Your task to perform on an android device: all mails in gmail Image 0: 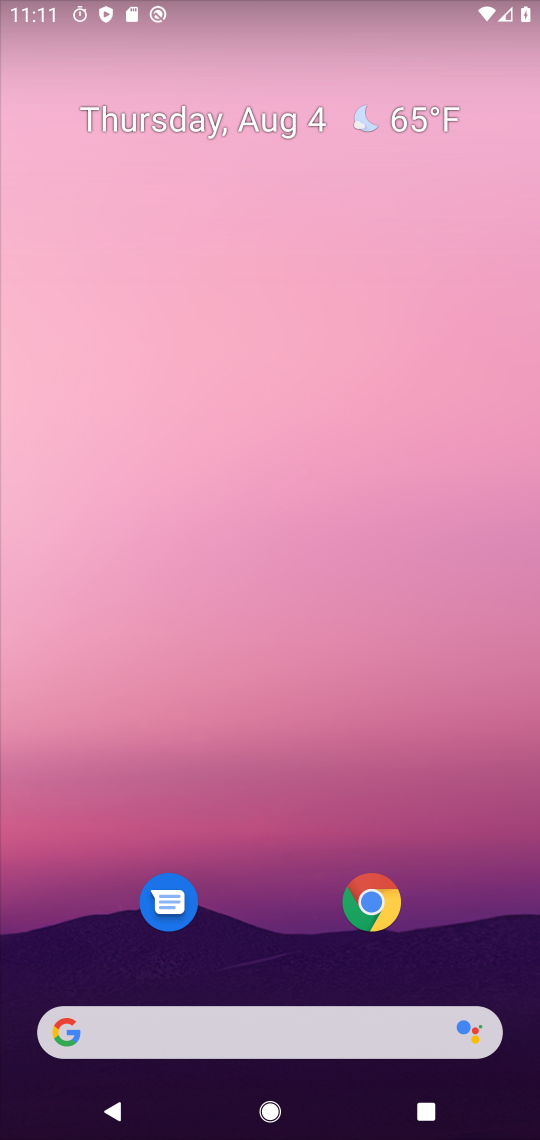
Step 0: press home button
Your task to perform on an android device: all mails in gmail Image 1: 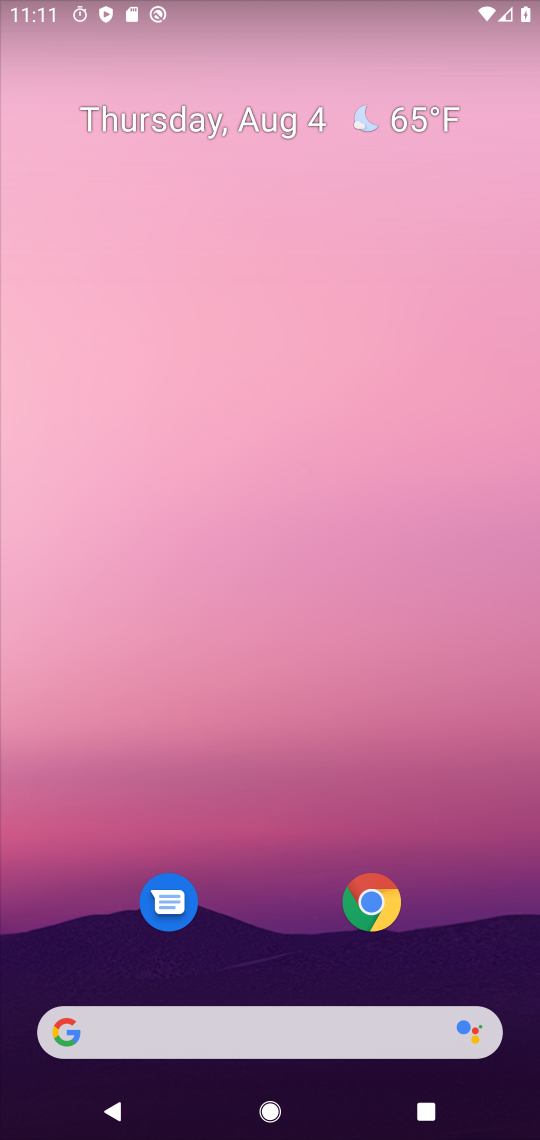
Step 1: drag from (320, 839) to (379, 181)
Your task to perform on an android device: all mails in gmail Image 2: 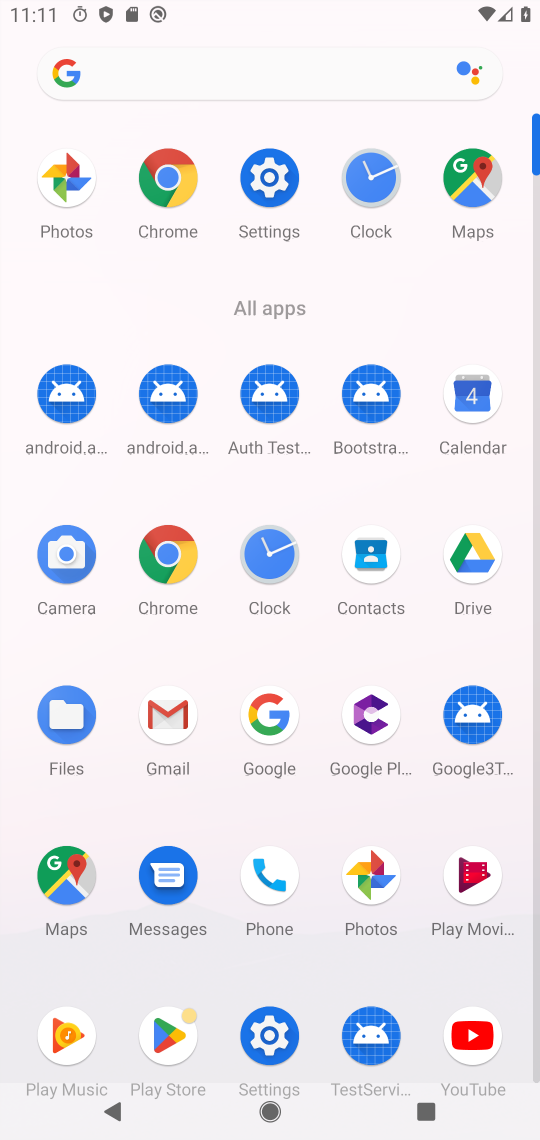
Step 2: click (171, 711)
Your task to perform on an android device: all mails in gmail Image 3: 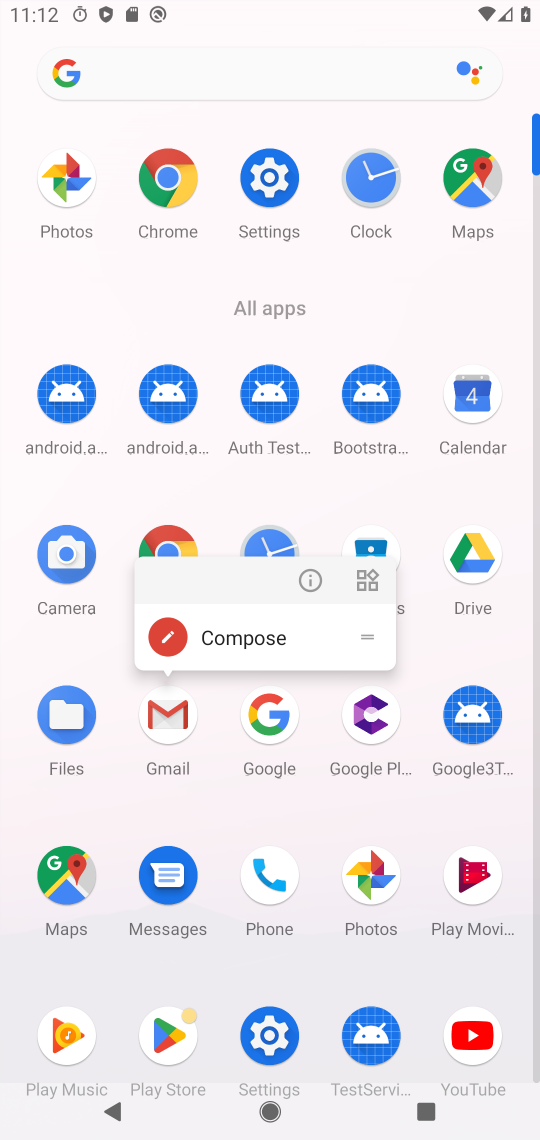
Step 3: click (159, 728)
Your task to perform on an android device: all mails in gmail Image 4: 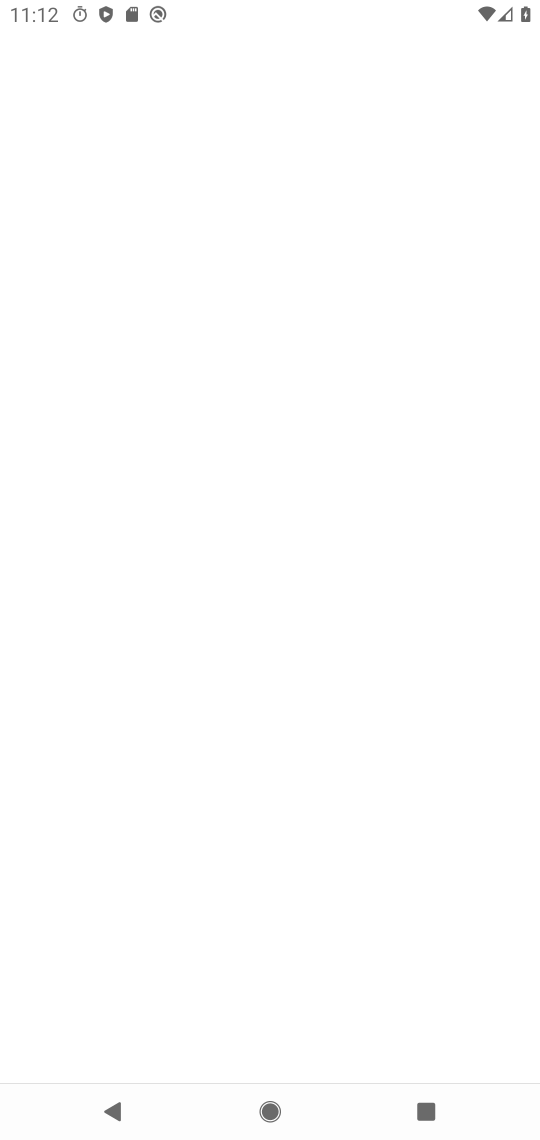
Step 4: click (171, 715)
Your task to perform on an android device: all mails in gmail Image 5: 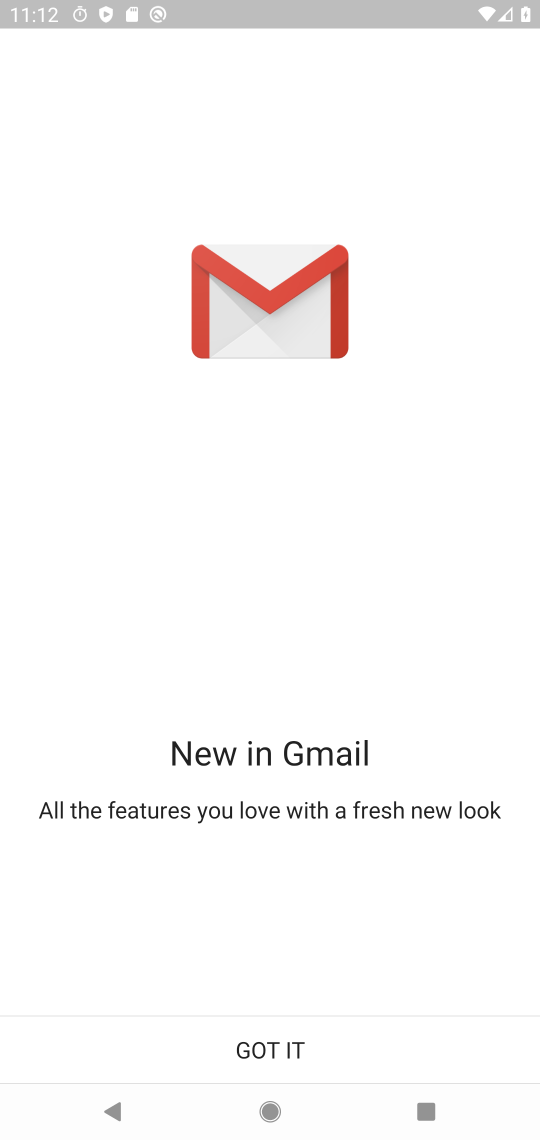
Step 5: click (288, 1047)
Your task to perform on an android device: all mails in gmail Image 6: 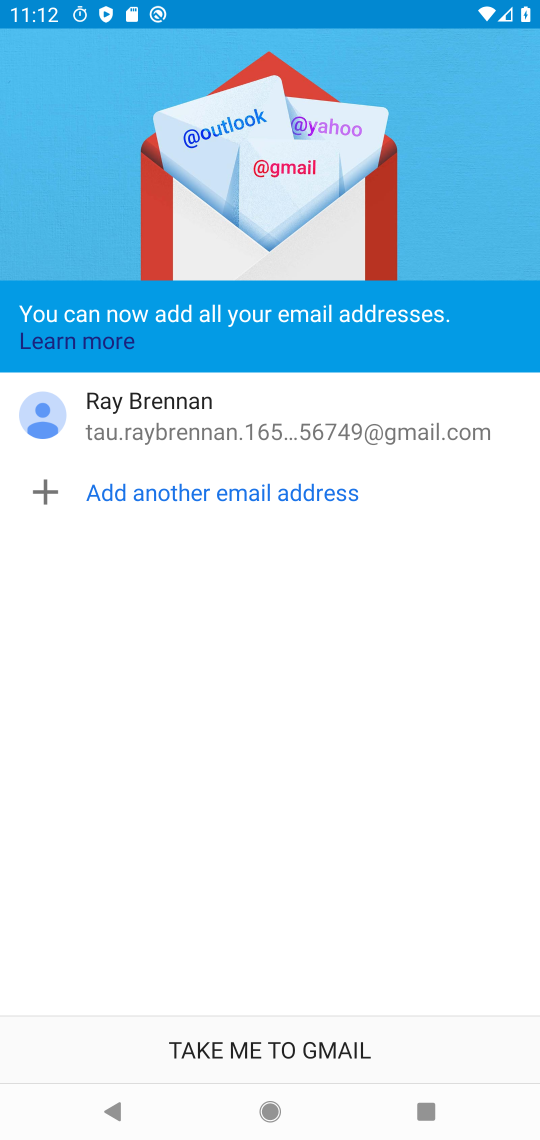
Step 6: click (268, 1047)
Your task to perform on an android device: all mails in gmail Image 7: 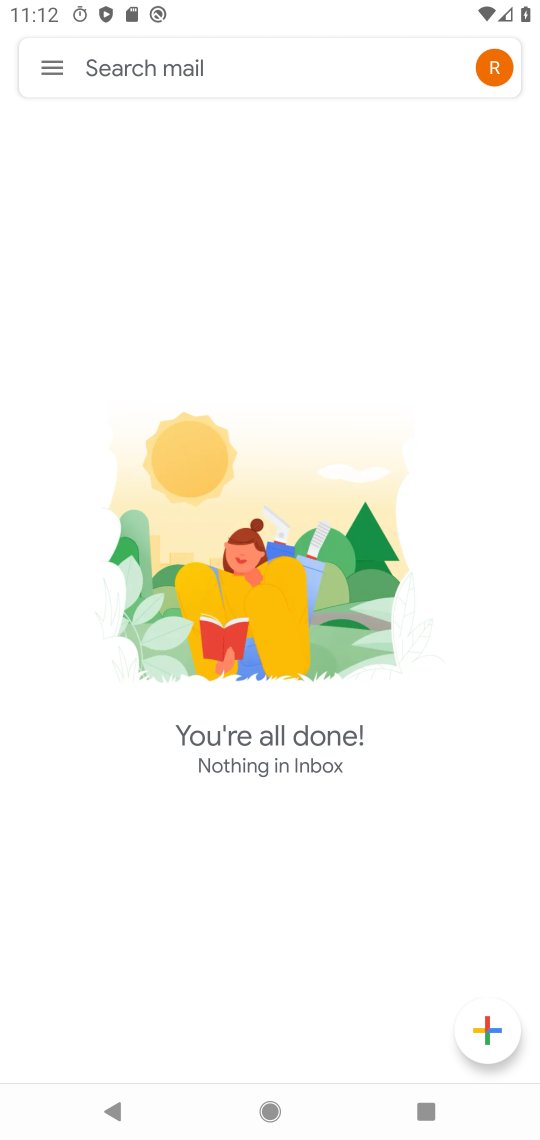
Step 7: click (51, 73)
Your task to perform on an android device: all mails in gmail Image 8: 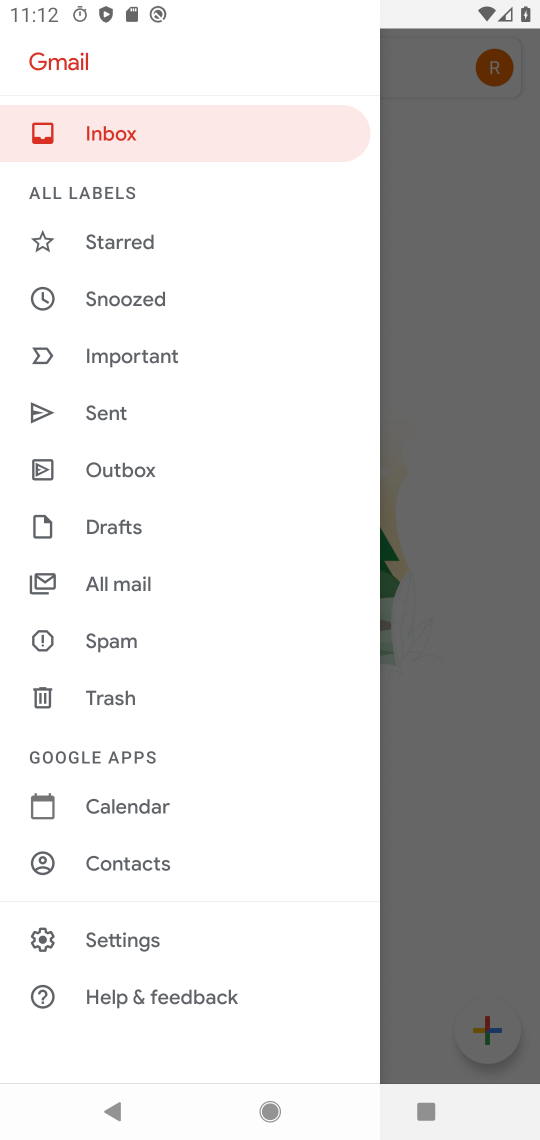
Step 8: click (121, 579)
Your task to perform on an android device: all mails in gmail Image 9: 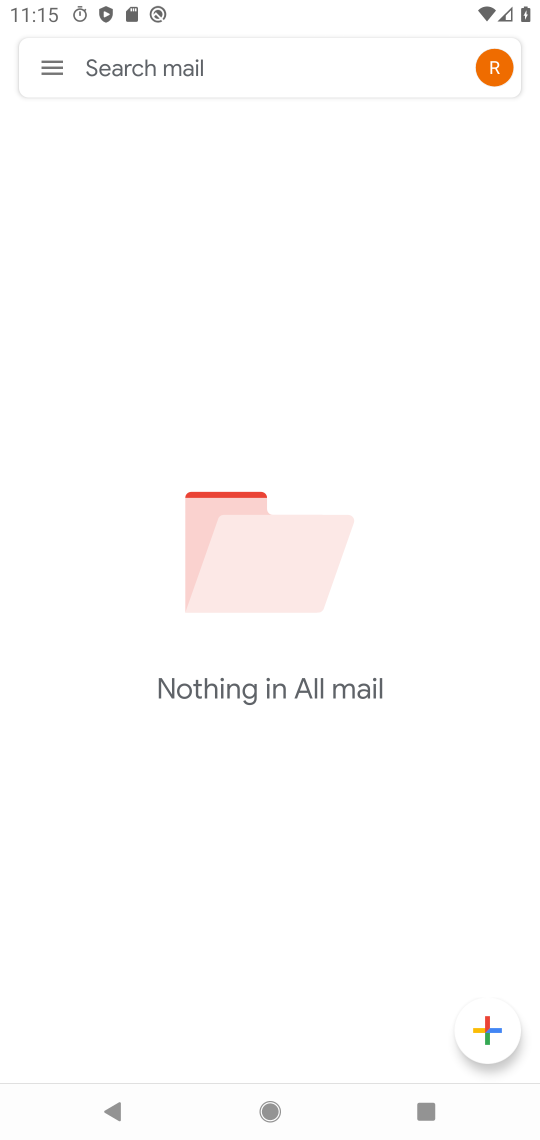
Step 9: task complete